Your task to perform on an android device: Open Google Maps and go to "Timeline" Image 0: 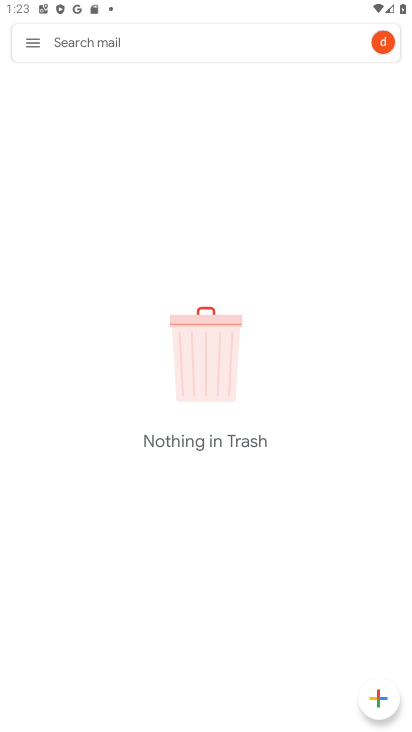
Step 0: press home button
Your task to perform on an android device: Open Google Maps and go to "Timeline" Image 1: 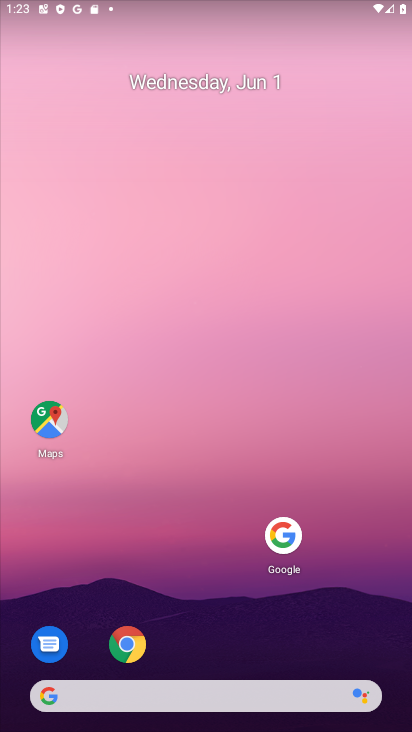
Step 1: click (49, 426)
Your task to perform on an android device: Open Google Maps and go to "Timeline" Image 2: 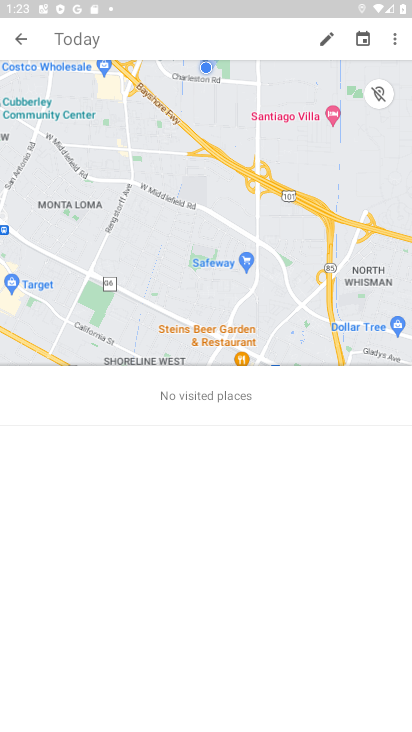
Step 2: task complete